Your task to perform on an android device: toggle sleep mode Image 0: 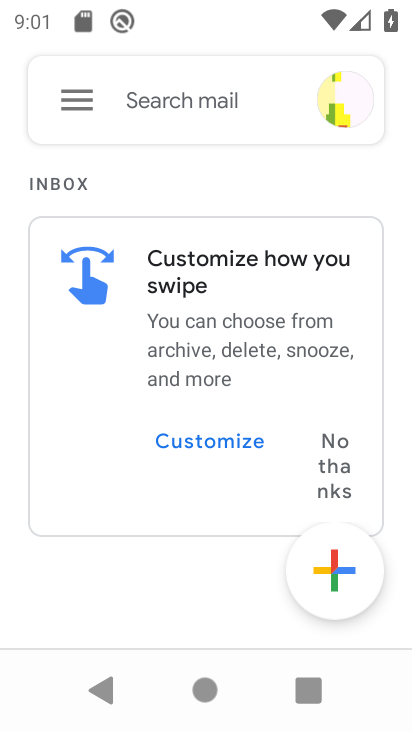
Step 0: press home button
Your task to perform on an android device: toggle sleep mode Image 1: 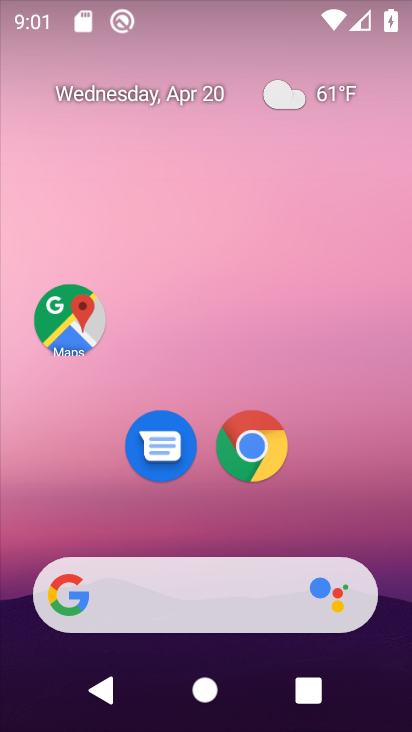
Step 1: drag from (319, 520) to (380, 95)
Your task to perform on an android device: toggle sleep mode Image 2: 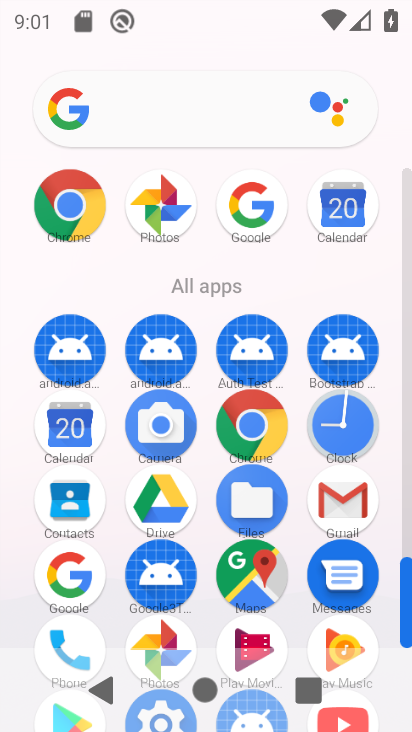
Step 2: drag from (196, 526) to (215, 148)
Your task to perform on an android device: toggle sleep mode Image 3: 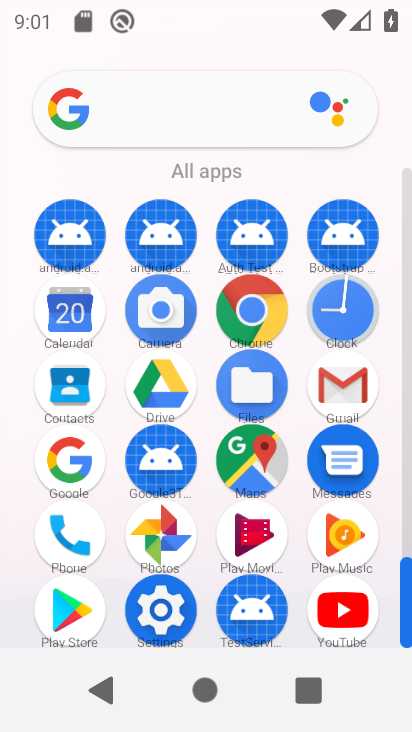
Step 3: click (162, 593)
Your task to perform on an android device: toggle sleep mode Image 4: 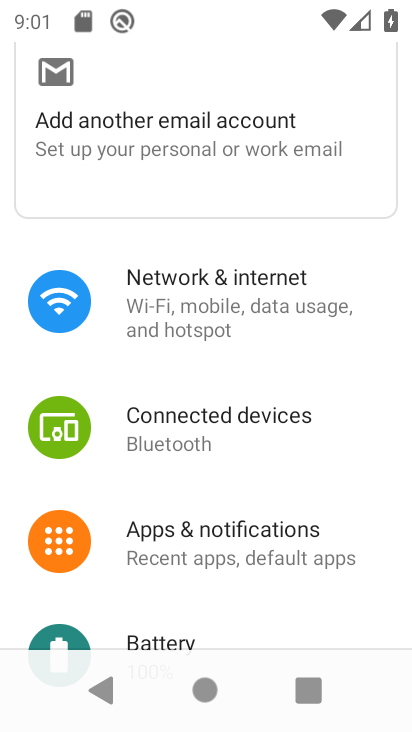
Step 4: drag from (316, 286) to (345, 510)
Your task to perform on an android device: toggle sleep mode Image 5: 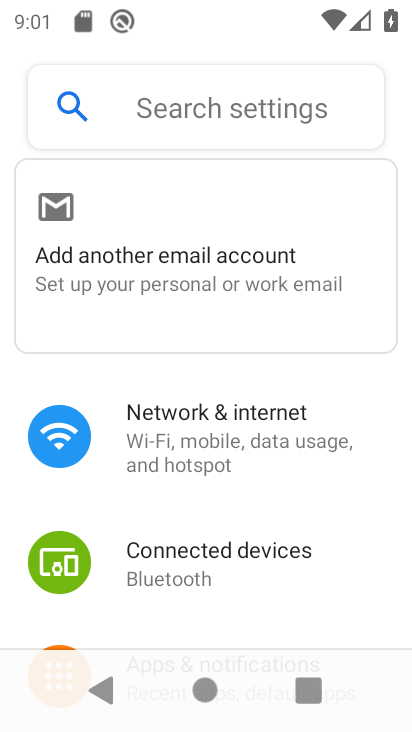
Step 5: click (231, 115)
Your task to perform on an android device: toggle sleep mode Image 6: 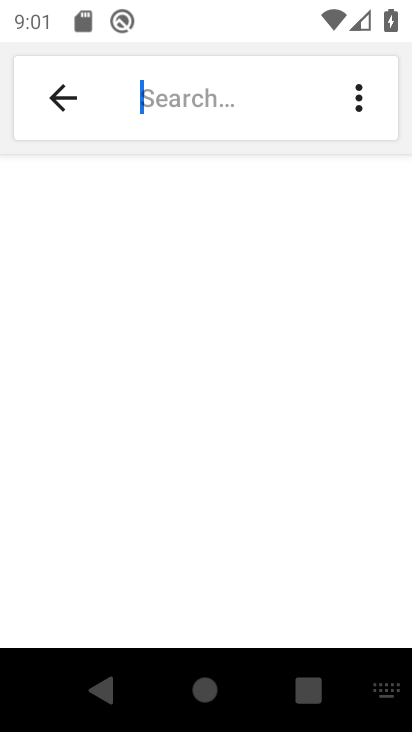
Step 6: type "sleep mode "
Your task to perform on an android device: toggle sleep mode Image 7: 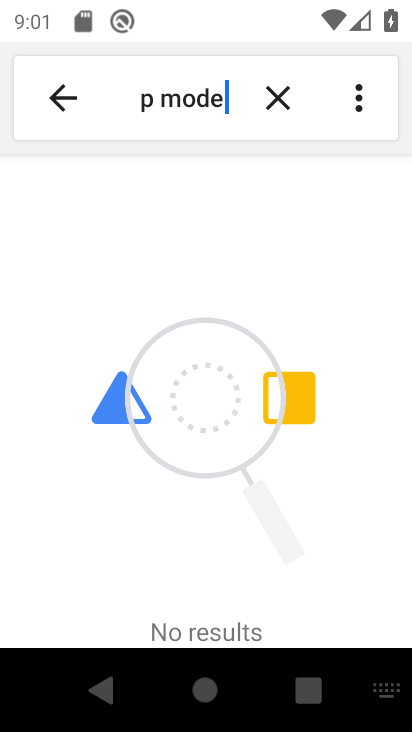
Step 7: click (146, 96)
Your task to perform on an android device: toggle sleep mode Image 8: 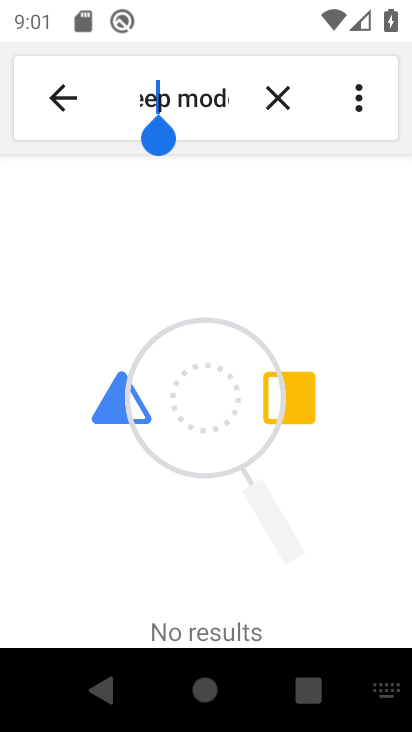
Step 8: click (137, 97)
Your task to perform on an android device: toggle sleep mode Image 9: 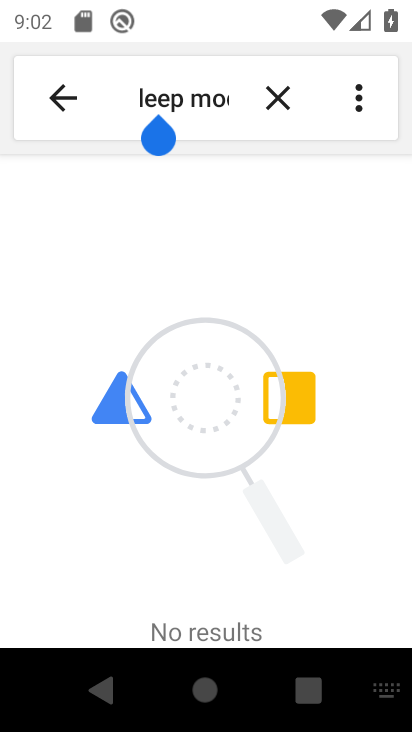
Step 9: task complete